Your task to perform on an android device: toggle notifications settings in the gmail app Image 0: 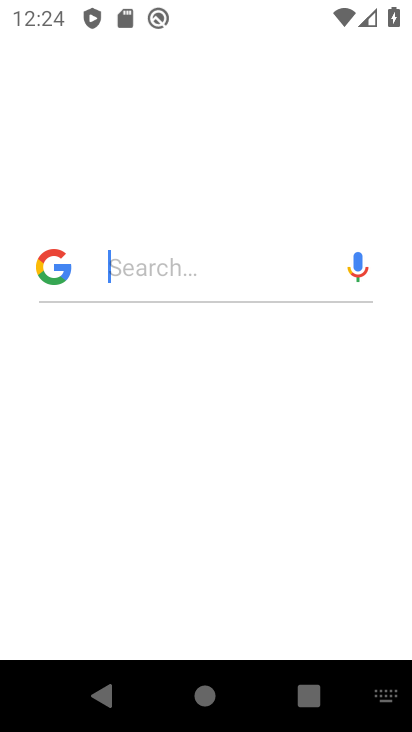
Step 0: press home button
Your task to perform on an android device: toggle notifications settings in the gmail app Image 1: 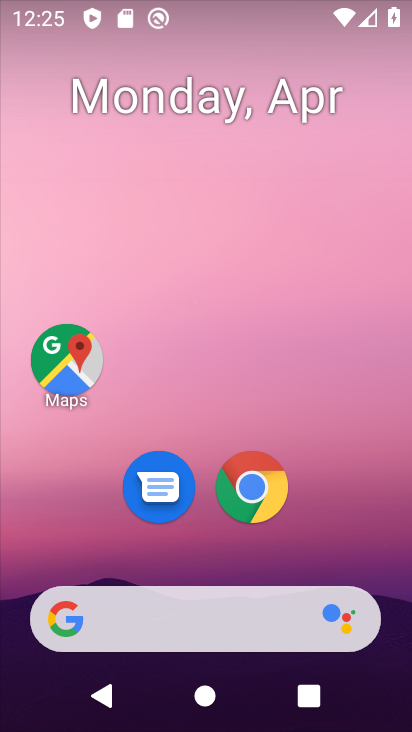
Step 1: drag from (393, 605) to (287, 86)
Your task to perform on an android device: toggle notifications settings in the gmail app Image 2: 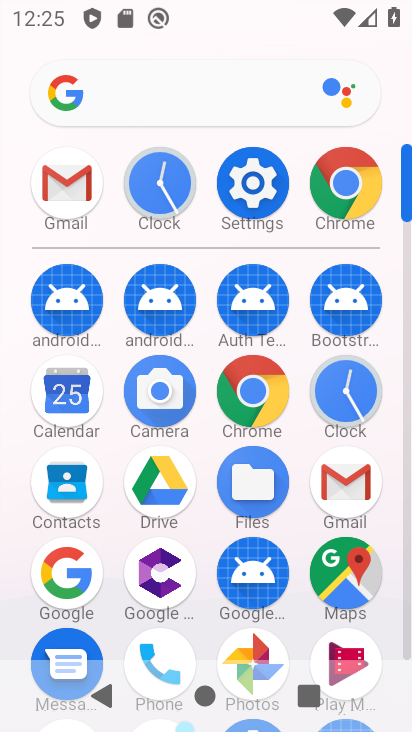
Step 2: click (335, 469)
Your task to perform on an android device: toggle notifications settings in the gmail app Image 3: 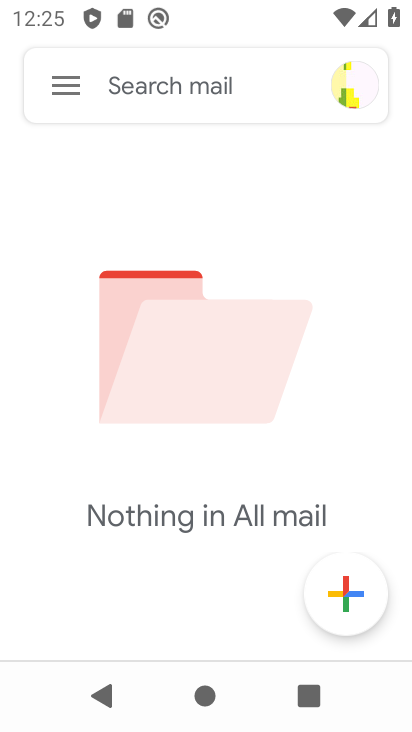
Step 3: click (58, 75)
Your task to perform on an android device: toggle notifications settings in the gmail app Image 4: 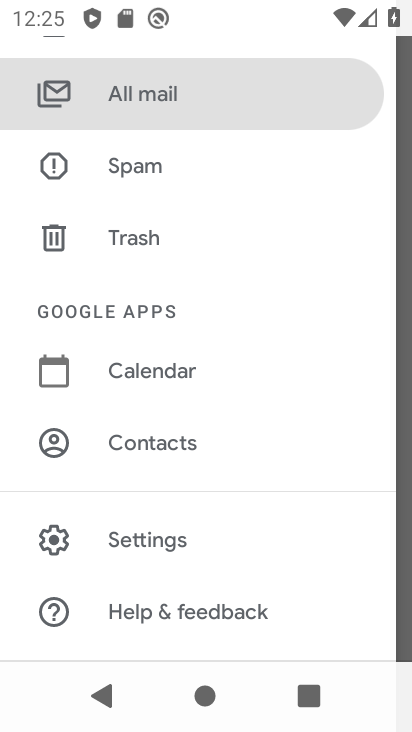
Step 4: click (191, 533)
Your task to perform on an android device: toggle notifications settings in the gmail app Image 5: 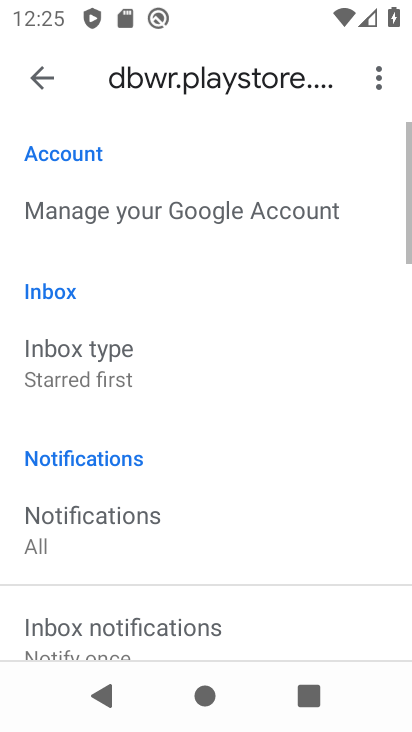
Step 5: click (125, 517)
Your task to perform on an android device: toggle notifications settings in the gmail app Image 6: 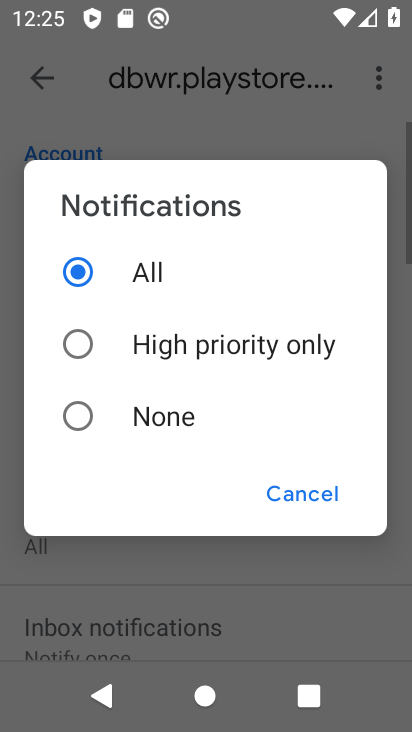
Step 6: click (130, 419)
Your task to perform on an android device: toggle notifications settings in the gmail app Image 7: 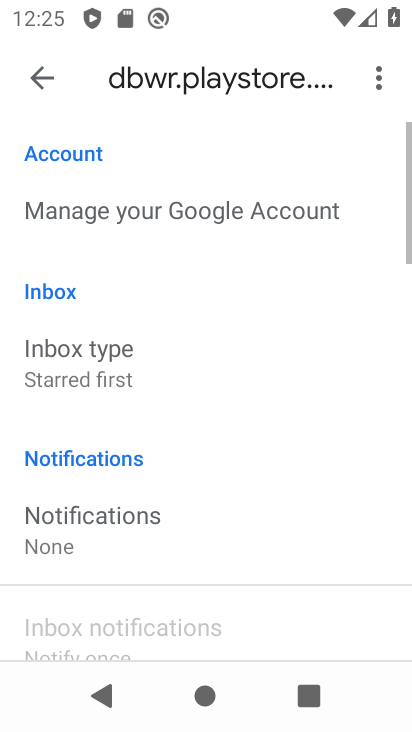
Step 7: task complete